Your task to perform on an android device: turn pop-ups off in chrome Image 0: 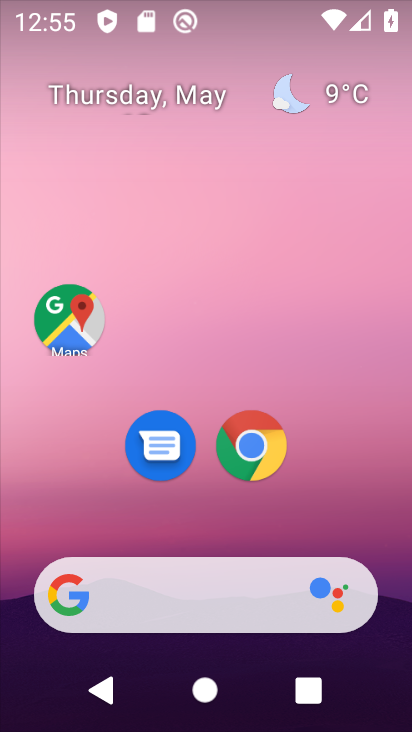
Step 0: drag from (340, 510) to (353, 113)
Your task to perform on an android device: turn pop-ups off in chrome Image 1: 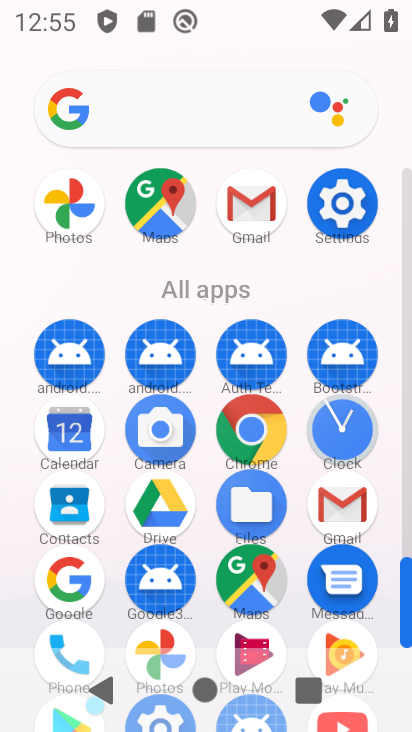
Step 1: click (256, 435)
Your task to perform on an android device: turn pop-ups off in chrome Image 2: 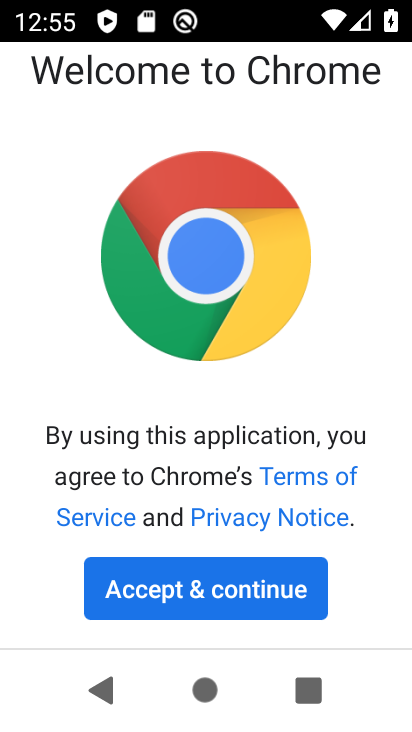
Step 2: click (280, 590)
Your task to perform on an android device: turn pop-ups off in chrome Image 3: 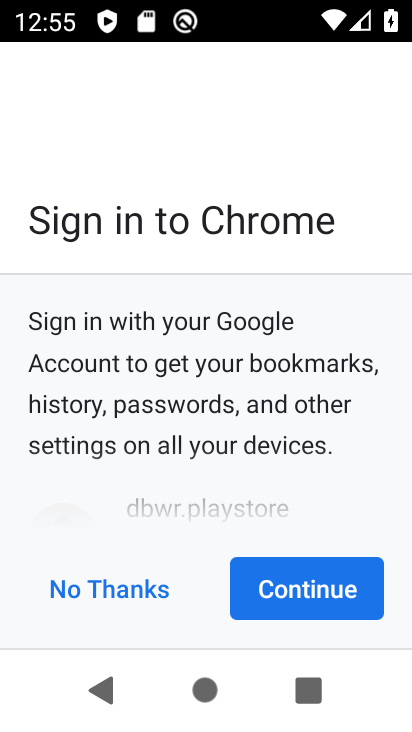
Step 3: click (298, 589)
Your task to perform on an android device: turn pop-ups off in chrome Image 4: 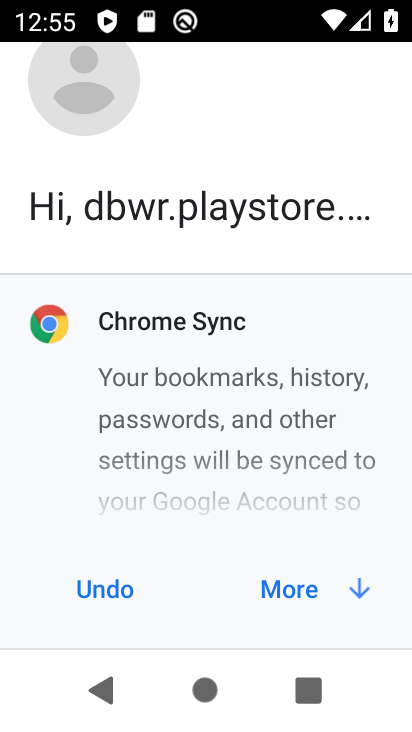
Step 4: click (299, 589)
Your task to perform on an android device: turn pop-ups off in chrome Image 5: 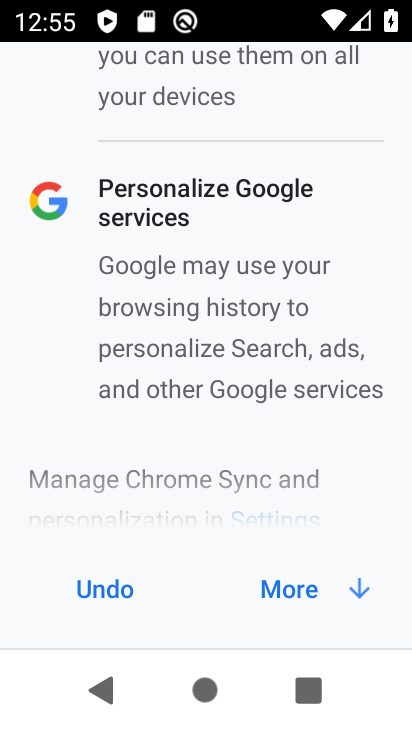
Step 5: click (299, 589)
Your task to perform on an android device: turn pop-ups off in chrome Image 6: 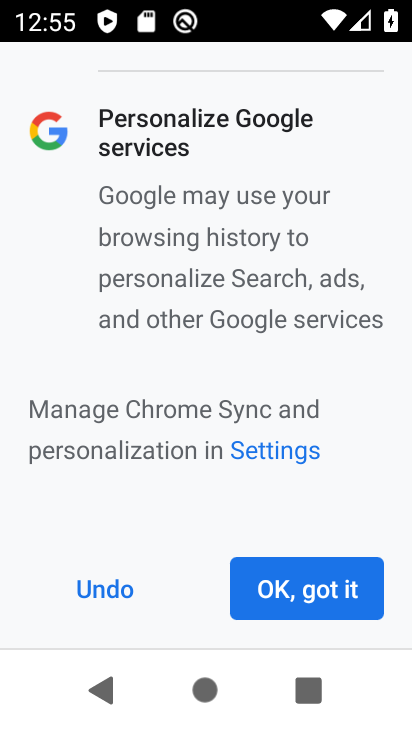
Step 6: click (299, 589)
Your task to perform on an android device: turn pop-ups off in chrome Image 7: 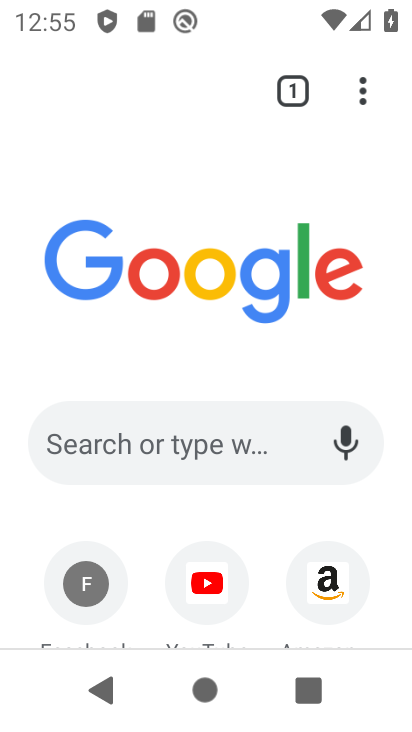
Step 7: click (373, 82)
Your task to perform on an android device: turn pop-ups off in chrome Image 8: 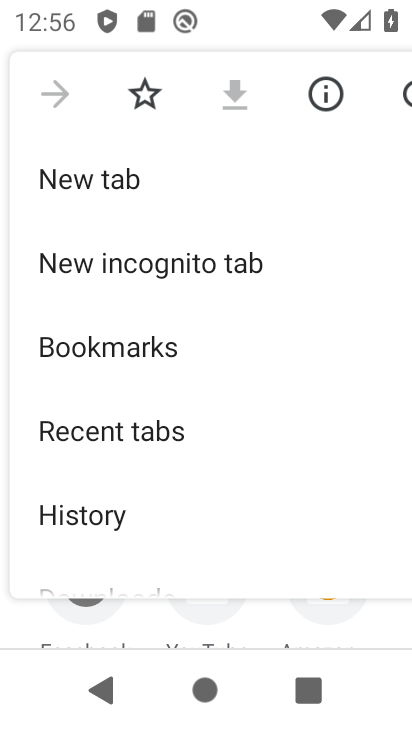
Step 8: drag from (189, 512) to (189, 180)
Your task to perform on an android device: turn pop-ups off in chrome Image 9: 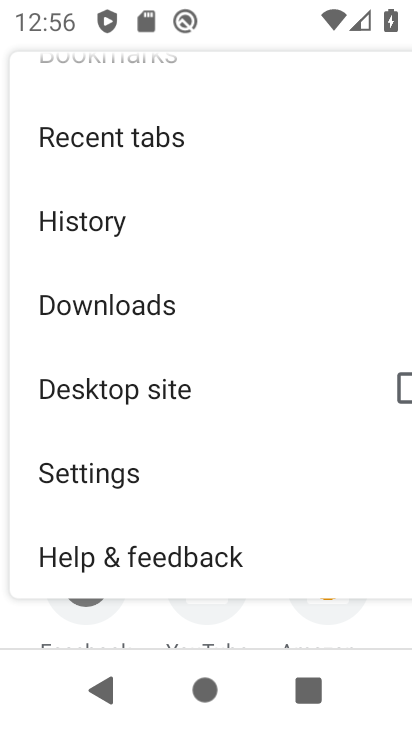
Step 9: click (124, 489)
Your task to perform on an android device: turn pop-ups off in chrome Image 10: 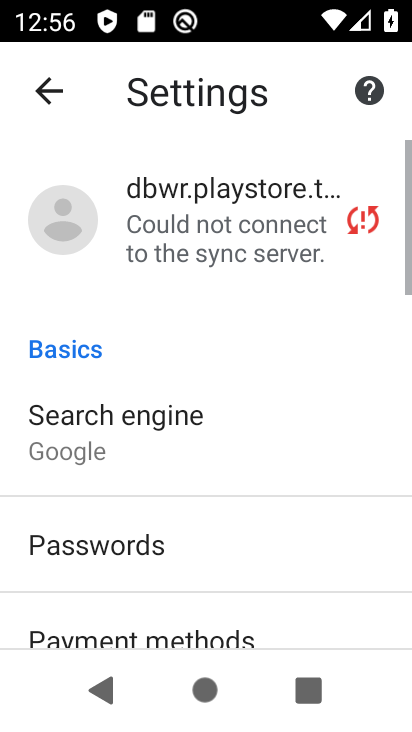
Step 10: drag from (204, 599) to (214, 202)
Your task to perform on an android device: turn pop-ups off in chrome Image 11: 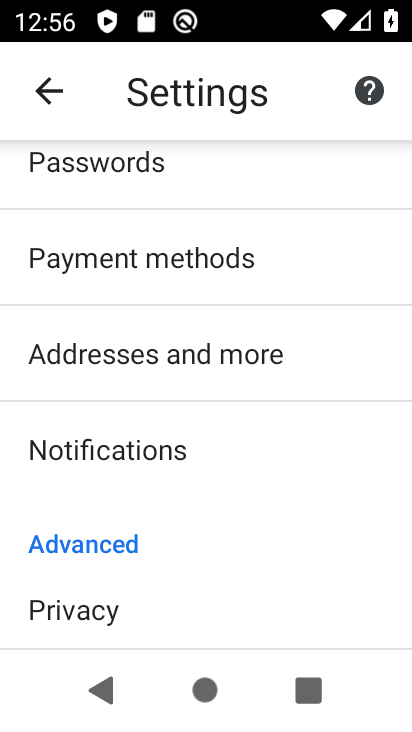
Step 11: drag from (207, 565) to (258, 276)
Your task to perform on an android device: turn pop-ups off in chrome Image 12: 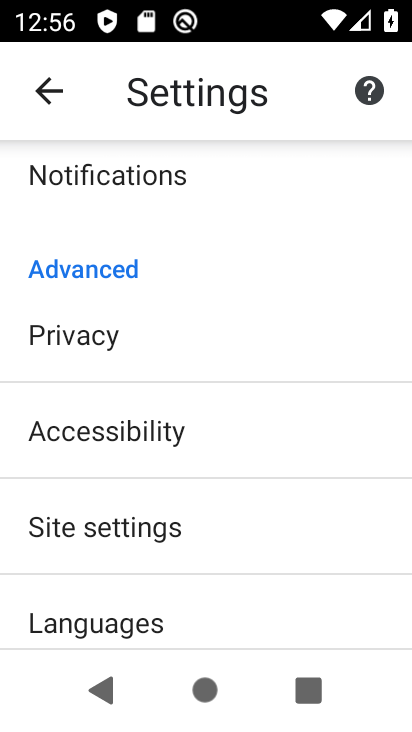
Step 12: click (170, 528)
Your task to perform on an android device: turn pop-ups off in chrome Image 13: 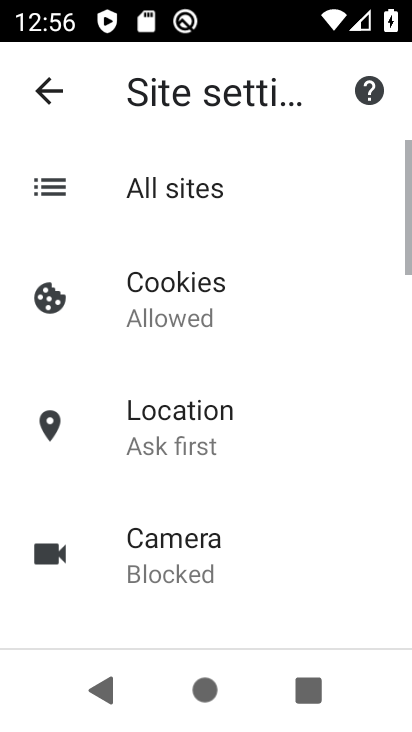
Step 13: drag from (270, 530) to (269, 190)
Your task to perform on an android device: turn pop-ups off in chrome Image 14: 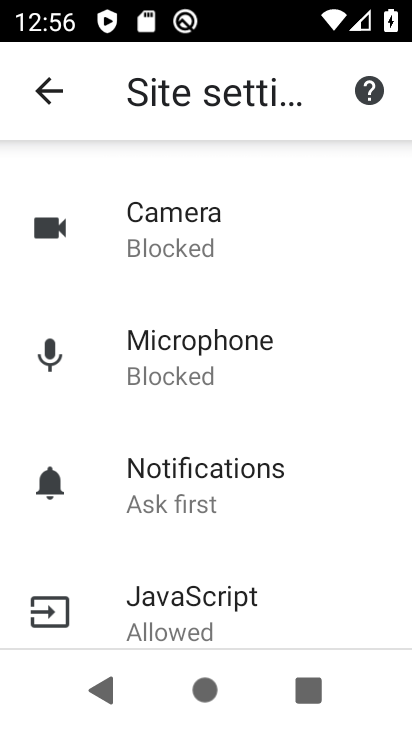
Step 14: drag from (266, 572) to (275, 184)
Your task to perform on an android device: turn pop-ups off in chrome Image 15: 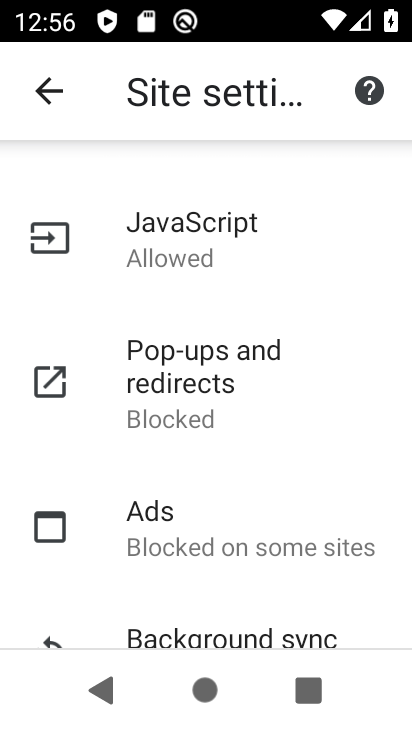
Step 15: click (204, 390)
Your task to perform on an android device: turn pop-ups off in chrome Image 16: 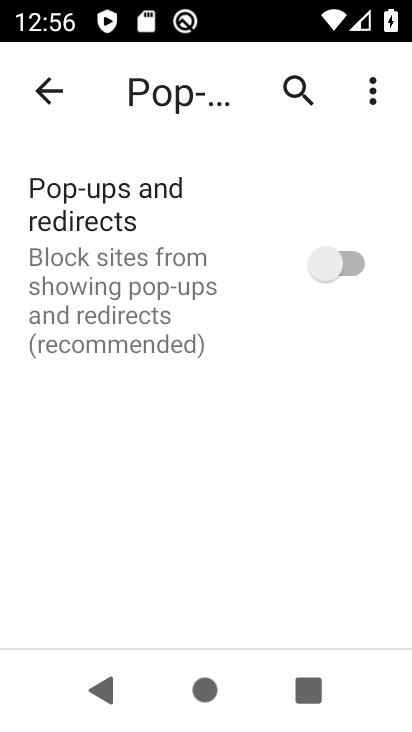
Step 16: task complete